Your task to perform on an android device: Open settings on Google Maps Image 0: 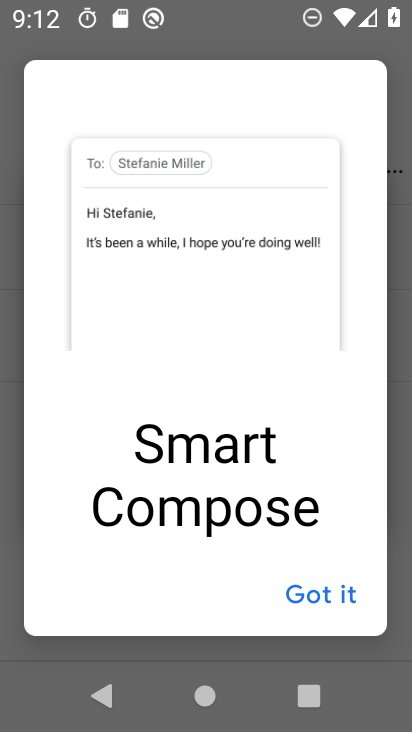
Step 0: click (326, 590)
Your task to perform on an android device: Open settings on Google Maps Image 1: 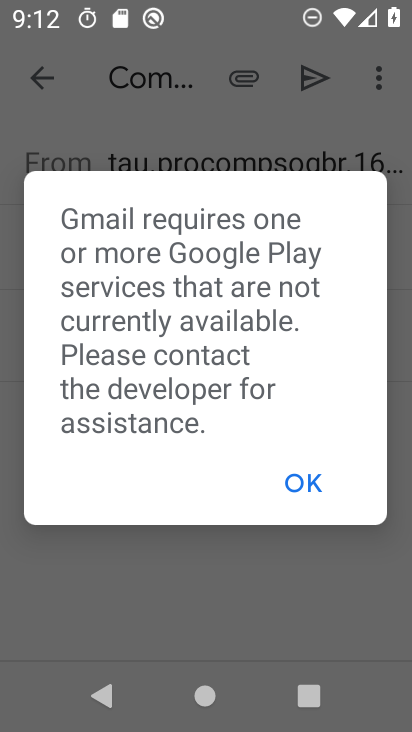
Step 1: click (318, 492)
Your task to perform on an android device: Open settings on Google Maps Image 2: 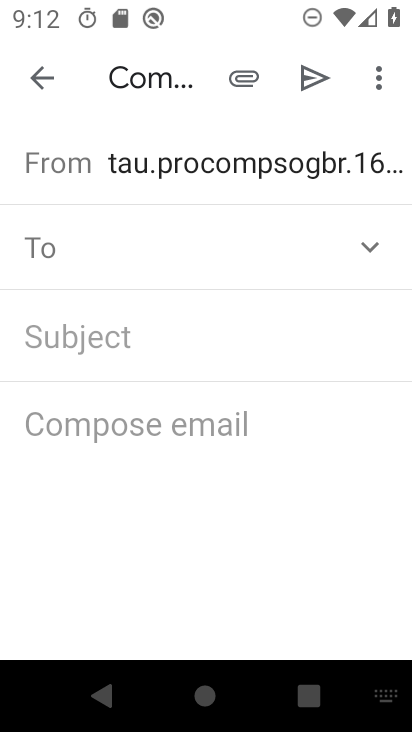
Step 2: press back button
Your task to perform on an android device: Open settings on Google Maps Image 3: 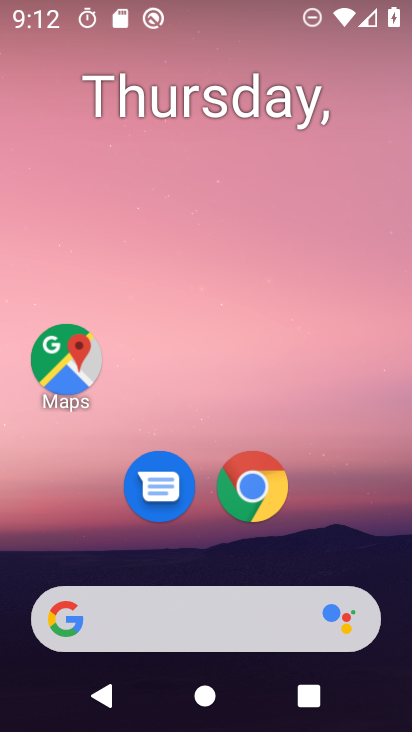
Step 3: click (77, 359)
Your task to perform on an android device: Open settings on Google Maps Image 4: 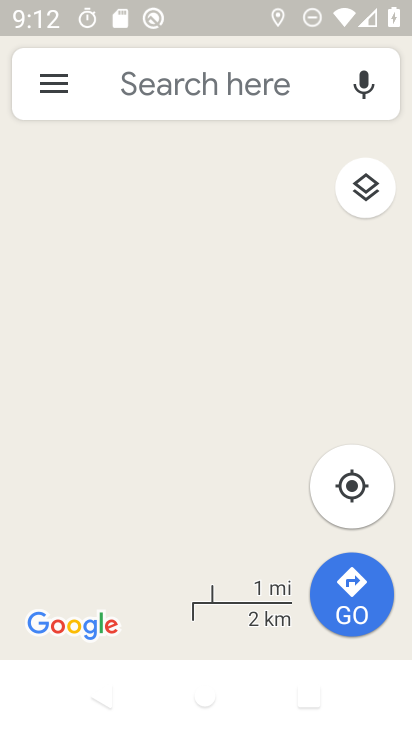
Step 4: click (61, 71)
Your task to perform on an android device: Open settings on Google Maps Image 5: 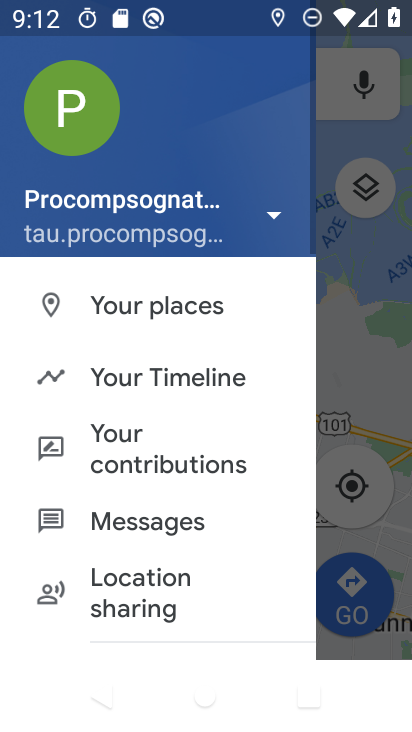
Step 5: drag from (155, 616) to (203, 176)
Your task to perform on an android device: Open settings on Google Maps Image 6: 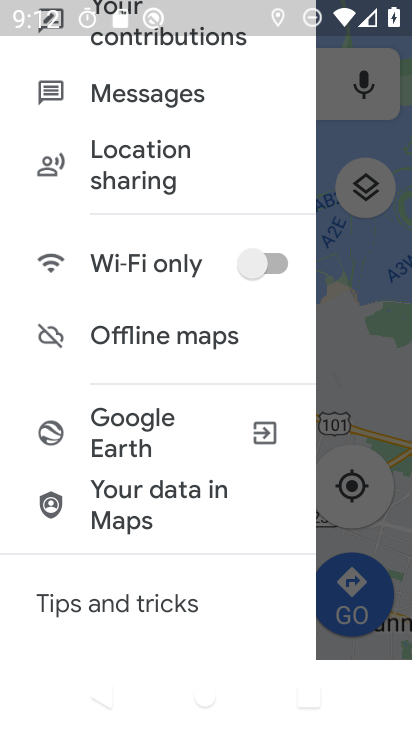
Step 6: drag from (160, 587) to (230, 49)
Your task to perform on an android device: Open settings on Google Maps Image 7: 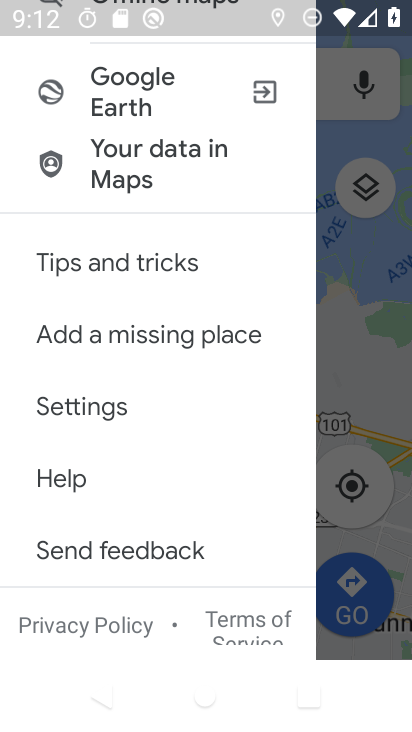
Step 7: click (113, 411)
Your task to perform on an android device: Open settings on Google Maps Image 8: 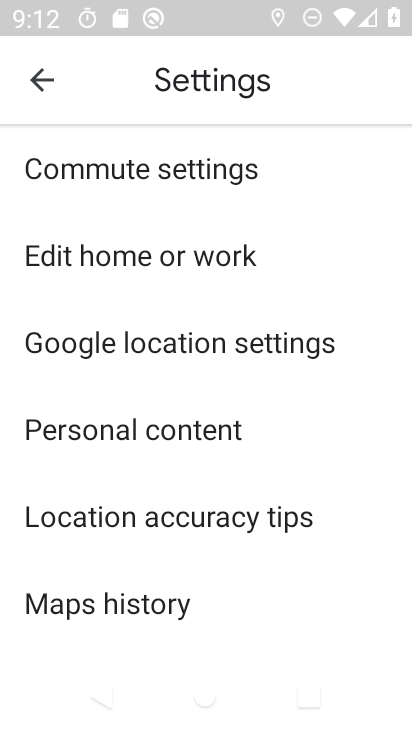
Step 8: task complete